Your task to perform on an android device: turn off location Image 0: 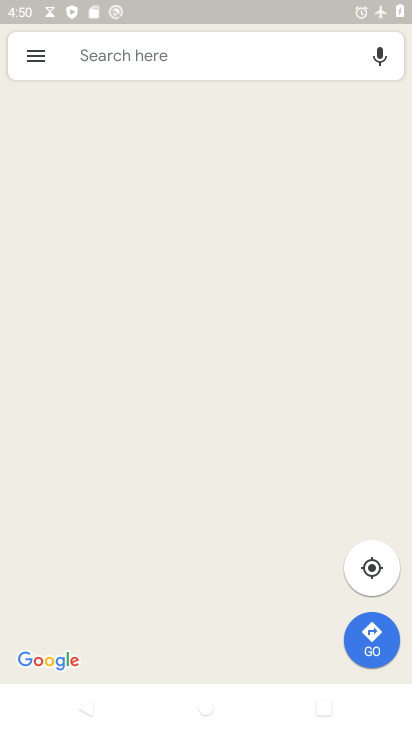
Step 0: press home button
Your task to perform on an android device: turn off location Image 1: 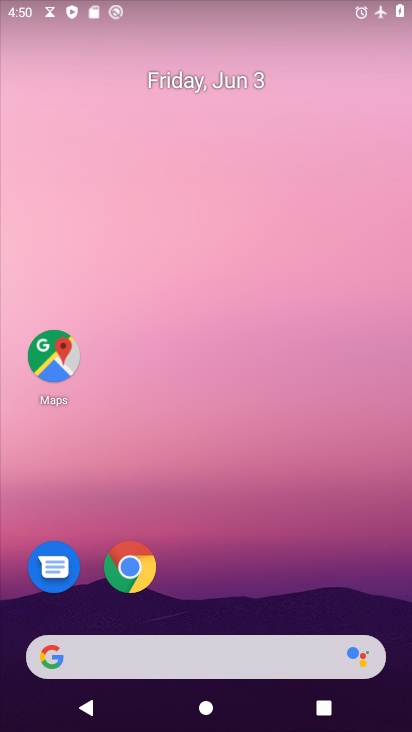
Step 1: drag from (269, 512) to (277, 31)
Your task to perform on an android device: turn off location Image 2: 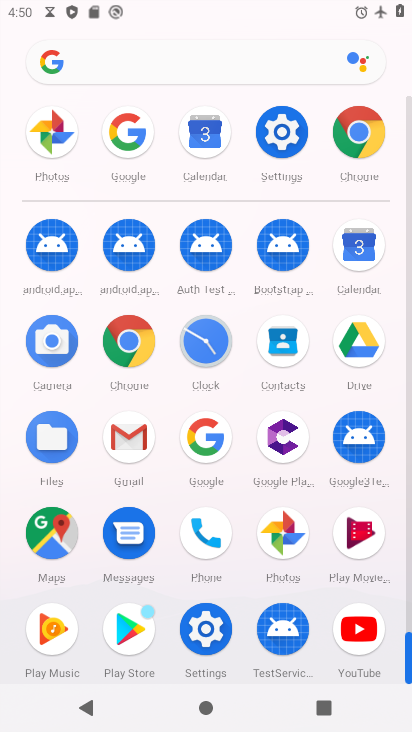
Step 2: click (282, 132)
Your task to perform on an android device: turn off location Image 3: 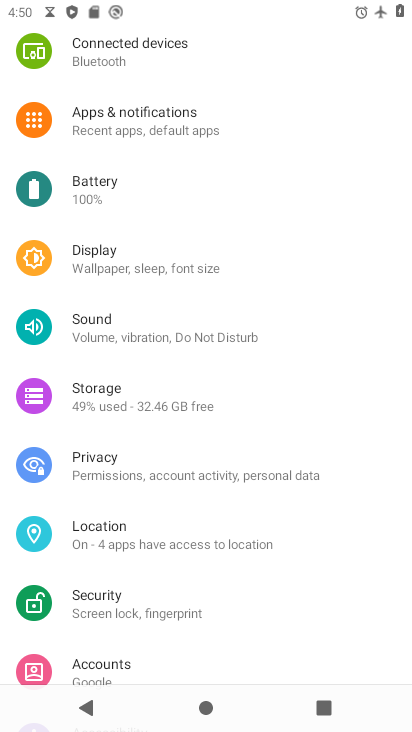
Step 3: click (129, 542)
Your task to perform on an android device: turn off location Image 4: 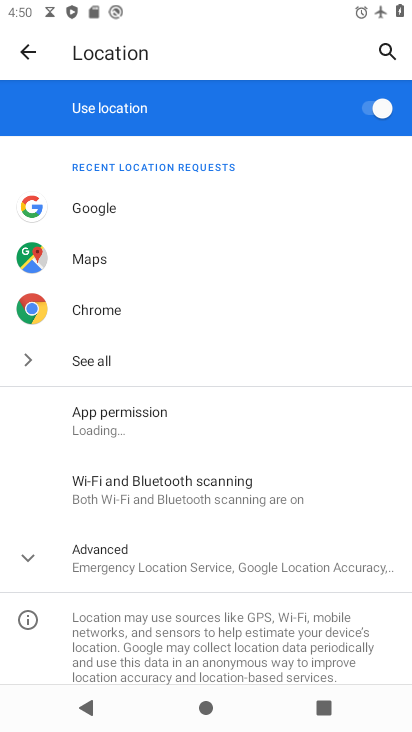
Step 4: click (367, 108)
Your task to perform on an android device: turn off location Image 5: 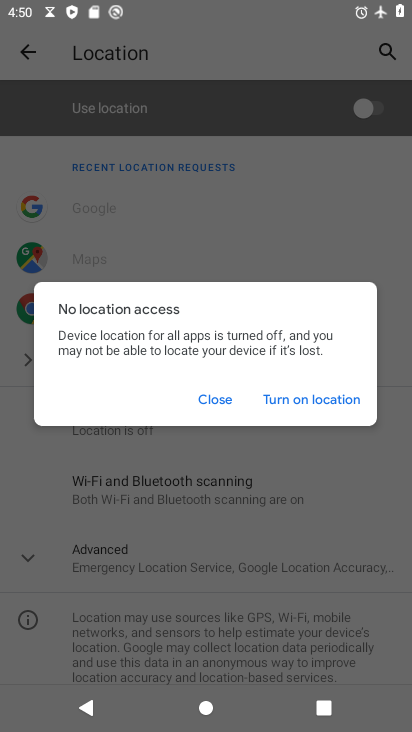
Step 5: click (220, 397)
Your task to perform on an android device: turn off location Image 6: 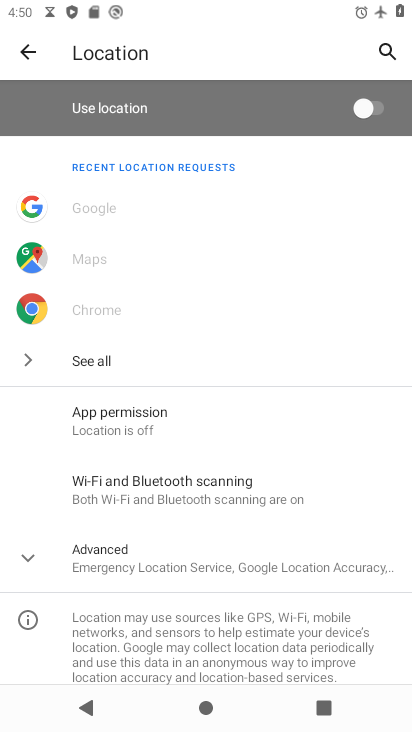
Step 6: task complete